Your task to perform on an android device: Open Youtube and go to "Your channel" Image 0: 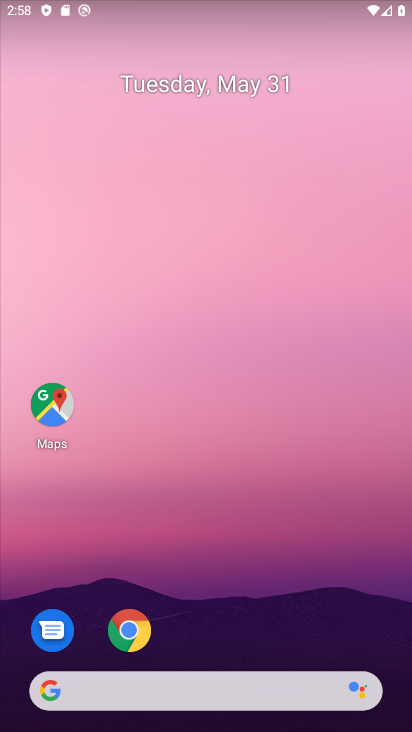
Step 0: drag from (242, 647) to (165, 17)
Your task to perform on an android device: Open Youtube and go to "Your channel" Image 1: 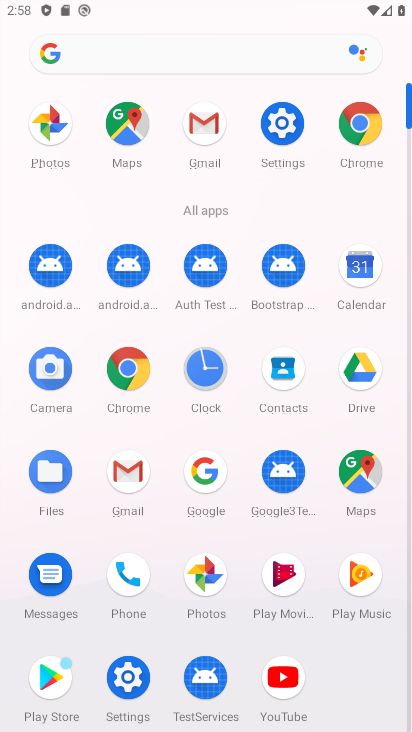
Step 1: click (272, 671)
Your task to perform on an android device: Open Youtube and go to "Your channel" Image 2: 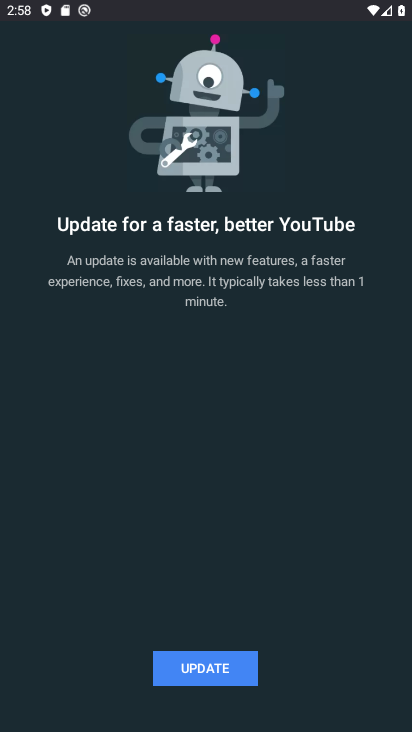
Step 2: click (272, 671)
Your task to perform on an android device: Open Youtube and go to "Your channel" Image 3: 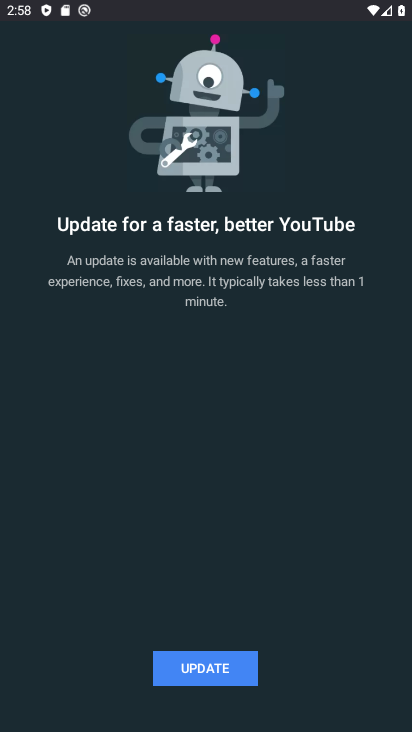
Step 3: click (229, 667)
Your task to perform on an android device: Open Youtube and go to "Your channel" Image 4: 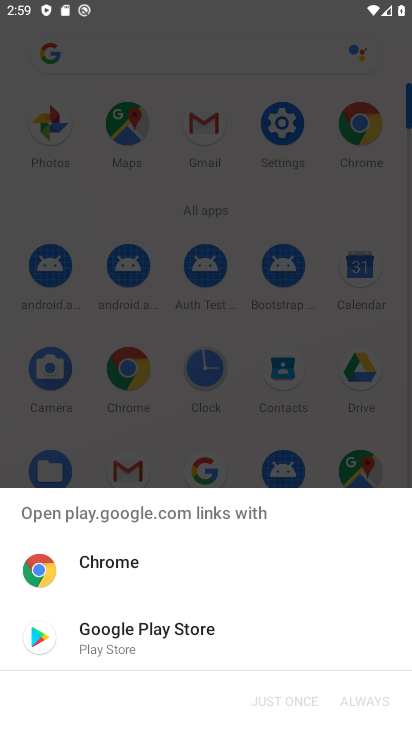
Step 4: click (142, 635)
Your task to perform on an android device: Open Youtube and go to "Your channel" Image 5: 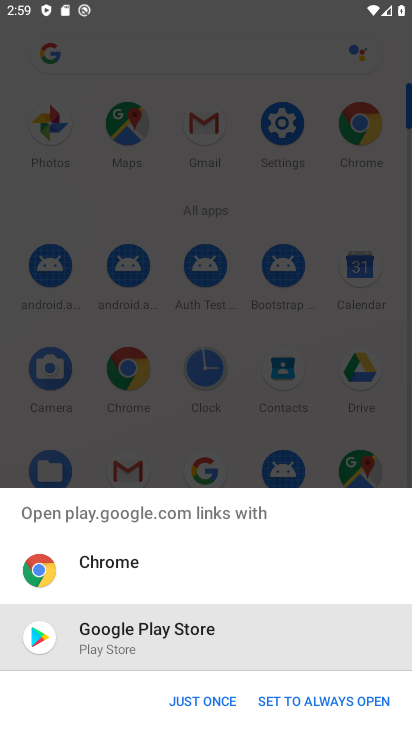
Step 5: click (196, 705)
Your task to perform on an android device: Open Youtube and go to "Your channel" Image 6: 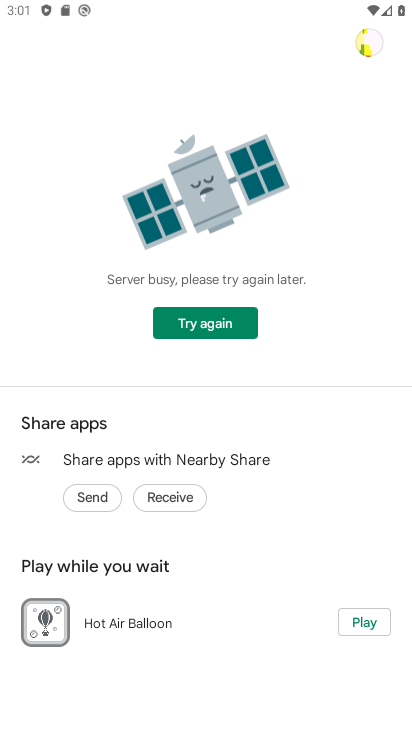
Step 6: task complete